Your task to perform on an android device: Open network settings Image 0: 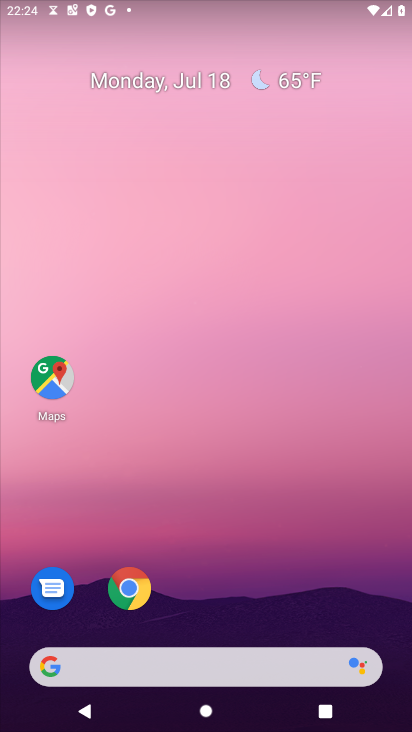
Step 0: drag from (222, 675) to (356, 111)
Your task to perform on an android device: Open network settings Image 1: 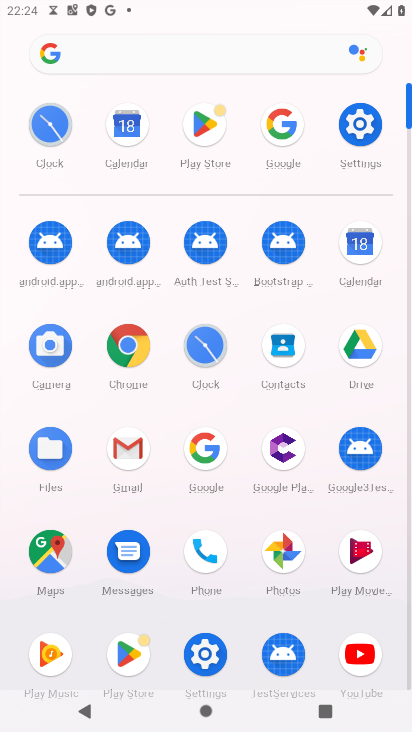
Step 1: click (359, 123)
Your task to perform on an android device: Open network settings Image 2: 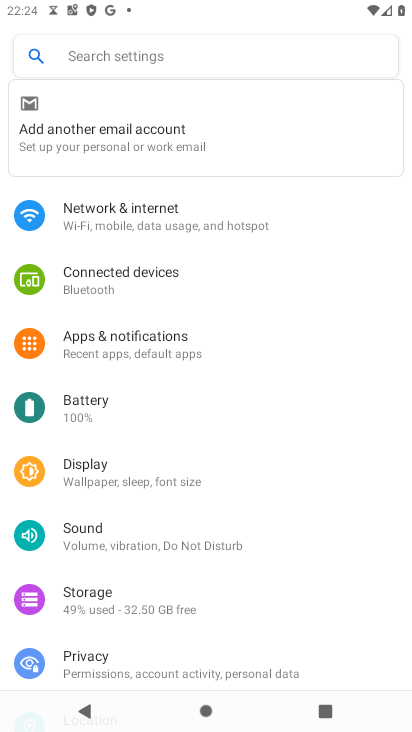
Step 2: click (202, 224)
Your task to perform on an android device: Open network settings Image 3: 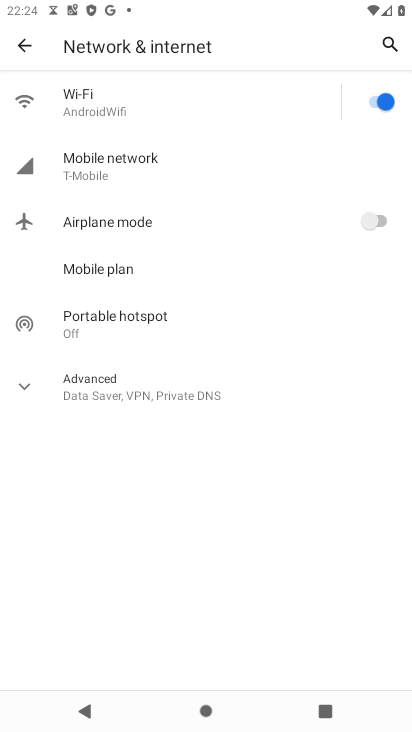
Step 3: task complete